Your task to perform on an android device: Go to Reddit.com Image 0: 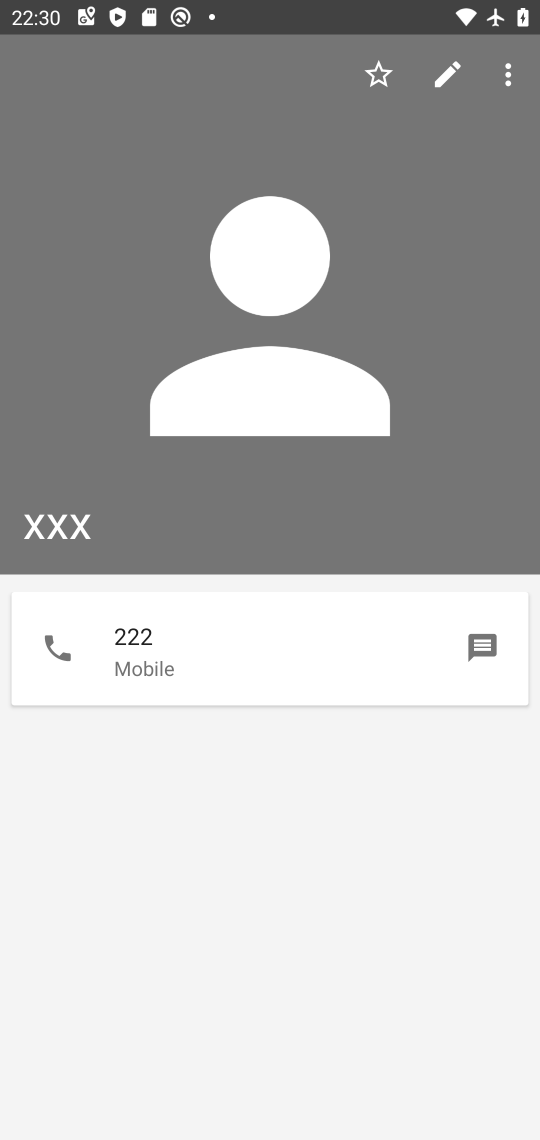
Step 0: press home button
Your task to perform on an android device: Go to Reddit.com Image 1: 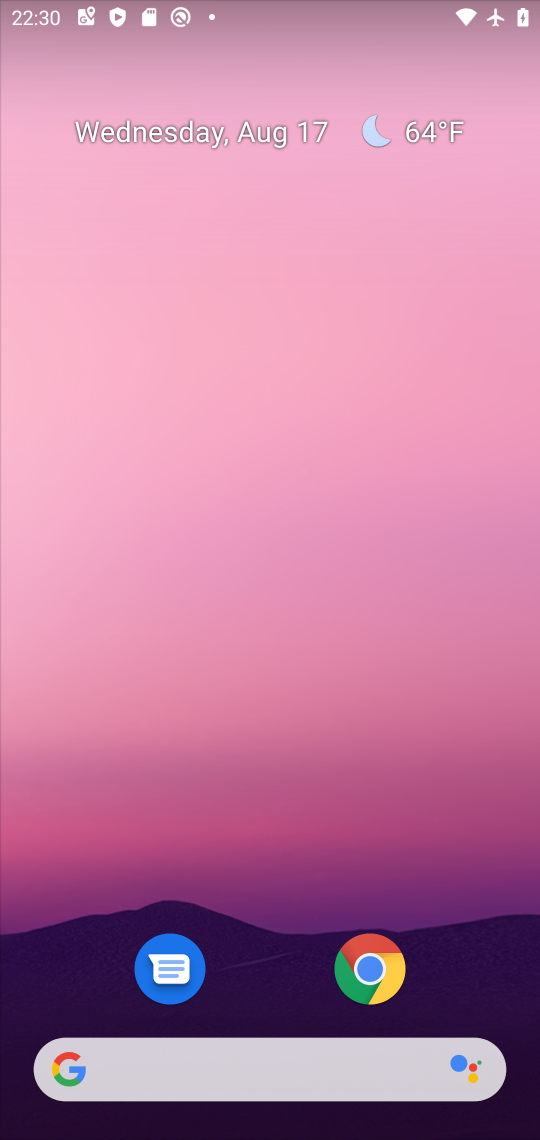
Step 1: click (233, 1080)
Your task to perform on an android device: Go to Reddit.com Image 2: 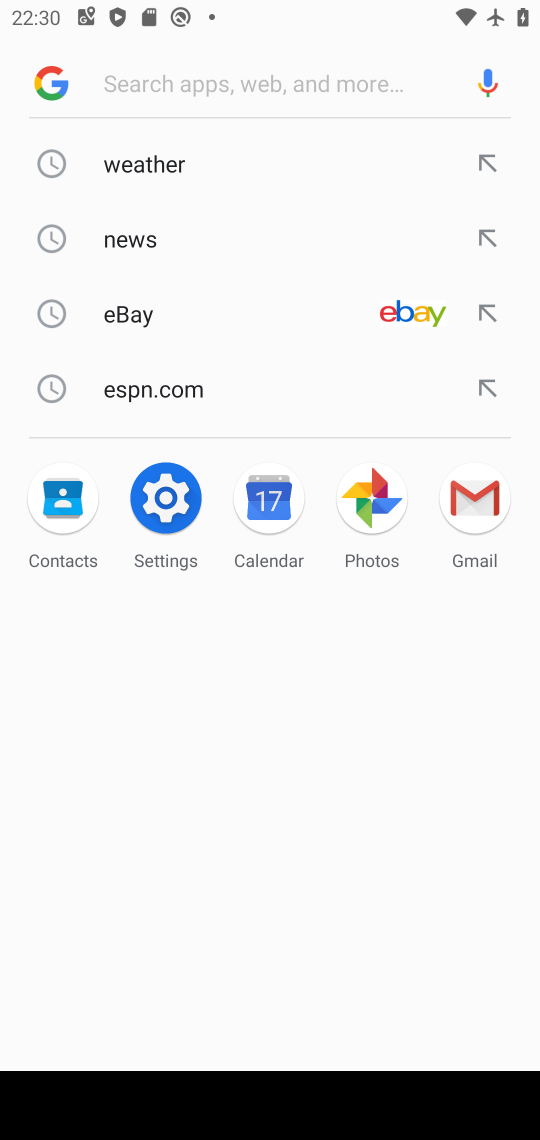
Step 2: type "reddit.com"
Your task to perform on an android device: Go to Reddit.com Image 3: 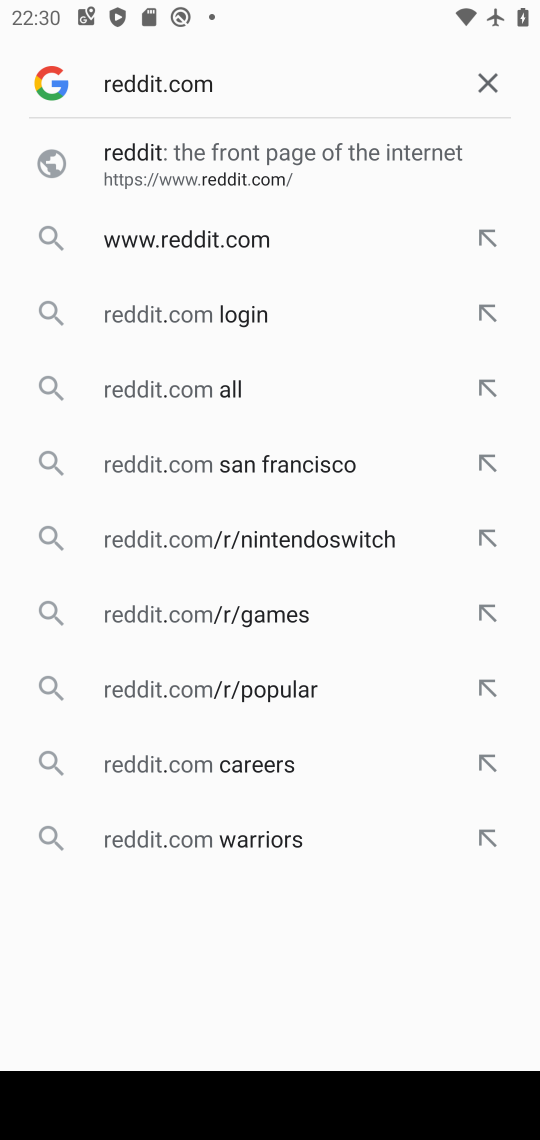
Step 3: click (177, 150)
Your task to perform on an android device: Go to Reddit.com Image 4: 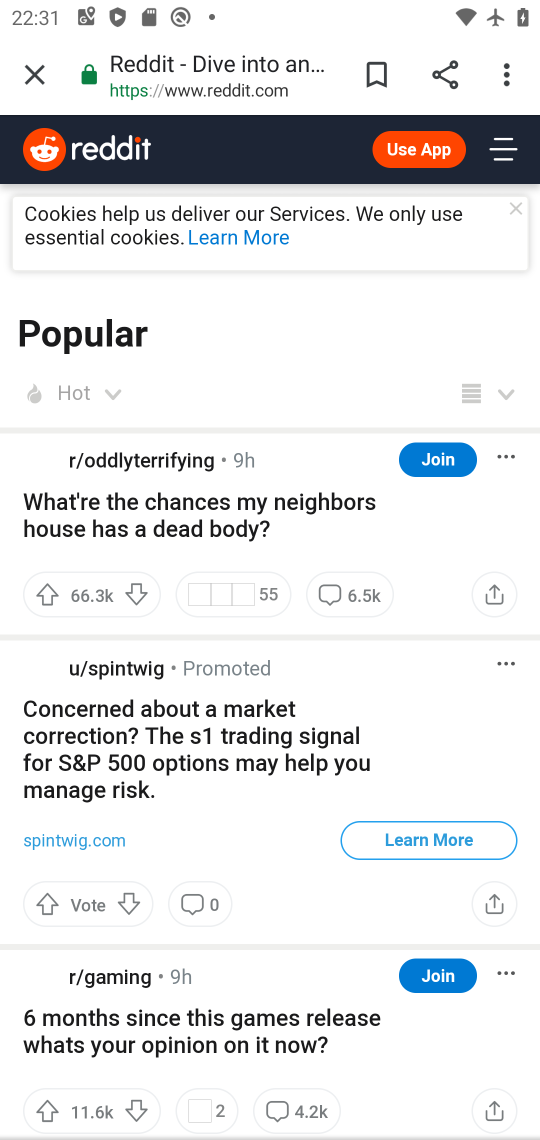
Step 4: task complete